Your task to perform on an android device: Do I have any events today? Image 0: 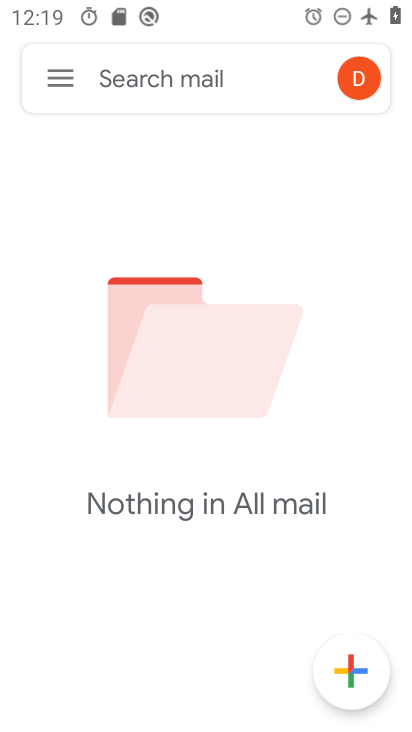
Step 0: press home button
Your task to perform on an android device: Do I have any events today? Image 1: 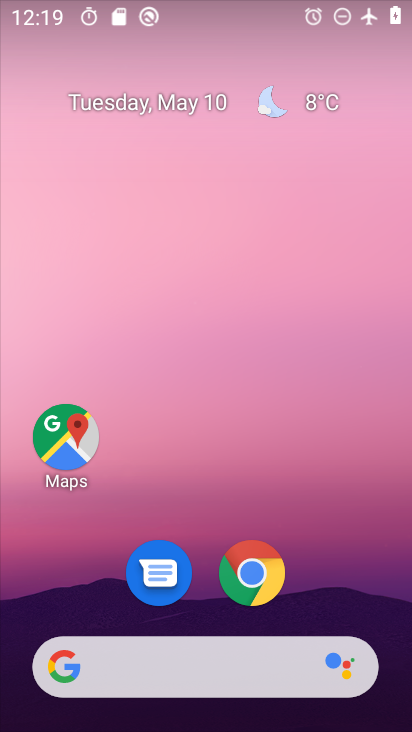
Step 1: drag from (265, 397) to (266, 136)
Your task to perform on an android device: Do I have any events today? Image 2: 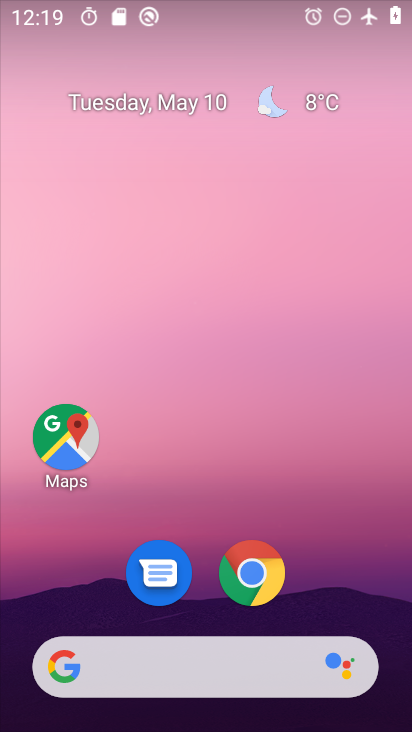
Step 2: drag from (301, 547) to (308, 218)
Your task to perform on an android device: Do I have any events today? Image 3: 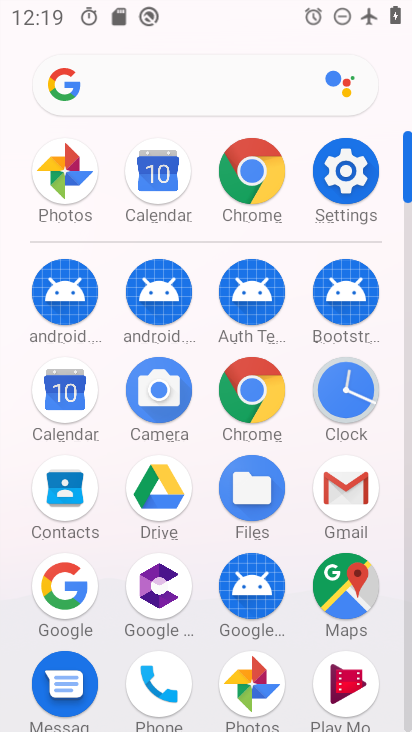
Step 3: click (62, 391)
Your task to perform on an android device: Do I have any events today? Image 4: 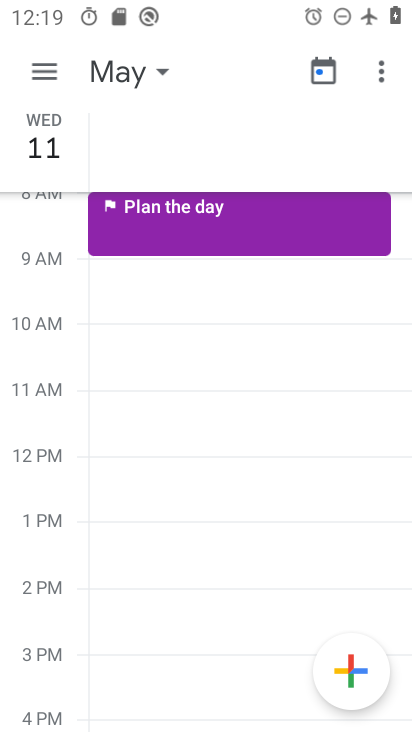
Step 4: click (139, 76)
Your task to perform on an android device: Do I have any events today? Image 5: 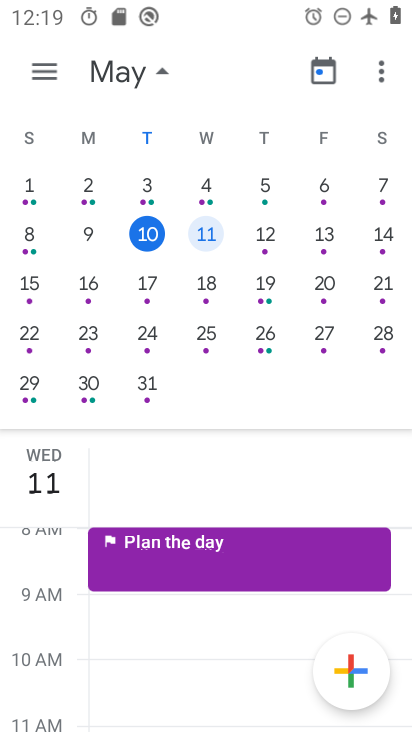
Step 5: click (137, 224)
Your task to perform on an android device: Do I have any events today? Image 6: 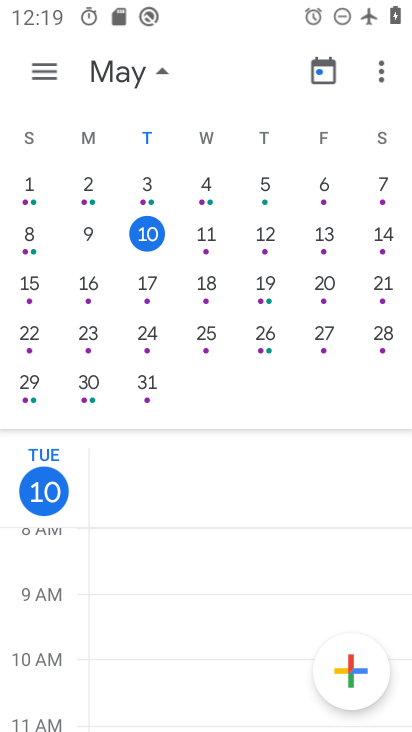
Step 6: task complete